Your task to perform on an android device: Go to battery settings Image 0: 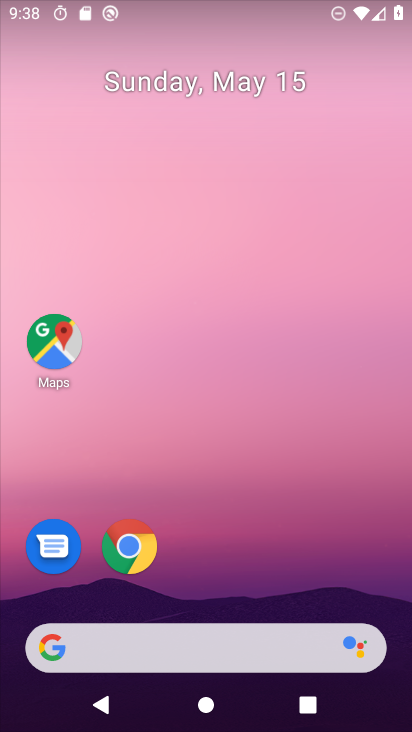
Step 0: drag from (232, 326) to (273, 109)
Your task to perform on an android device: Go to battery settings Image 1: 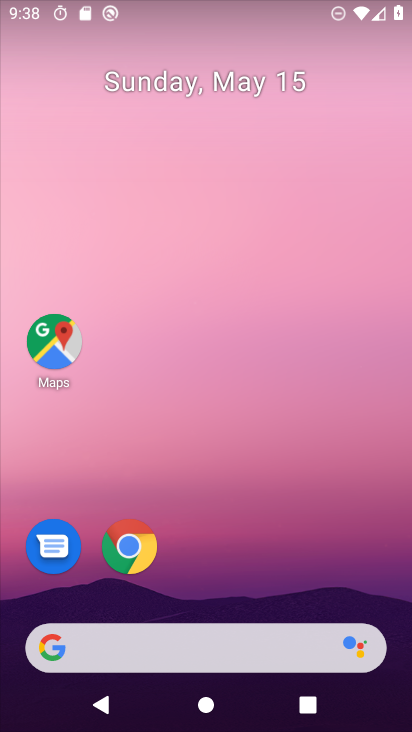
Step 1: drag from (216, 373) to (286, 72)
Your task to perform on an android device: Go to battery settings Image 2: 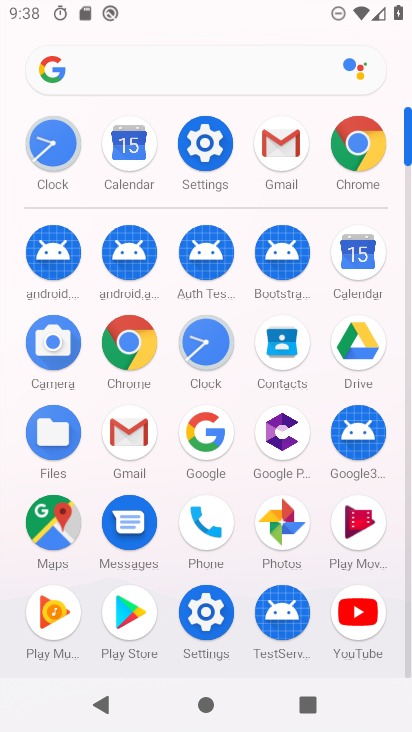
Step 2: click (207, 150)
Your task to perform on an android device: Go to battery settings Image 3: 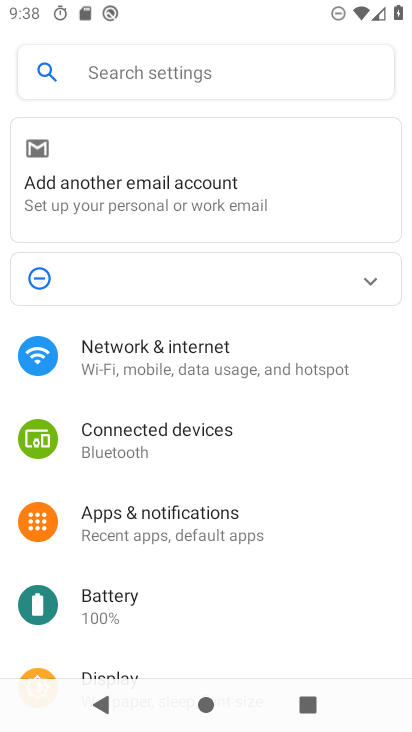
Step 3: click (167, 607)
Your task to perform on an android device: Go to battery settings Image 4: 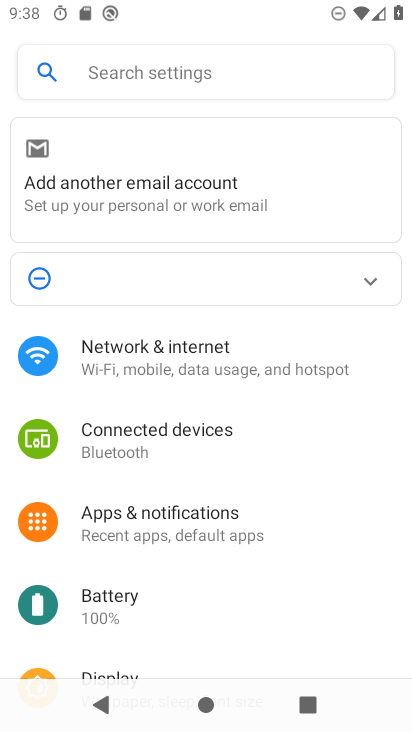
Step 4: click (173, 605)
Your task to perform on an android device: Go to battery settings Image 5: 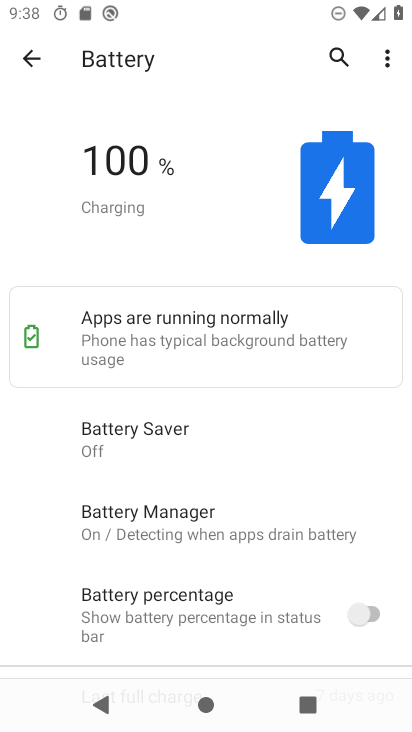
Step 5: task complete